Your task to perform on an android device: add a contact in the contacts app Image 0: 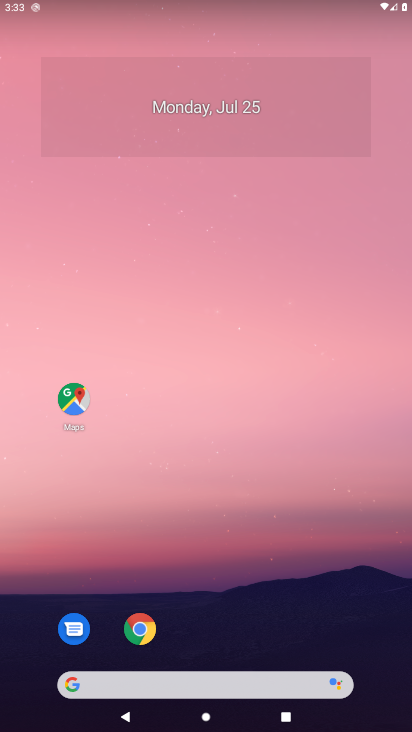
Step 0: drag from (46, 691) to (130, 245)
Your task to perform on an android device: add a contact in the contacts app Image 1: 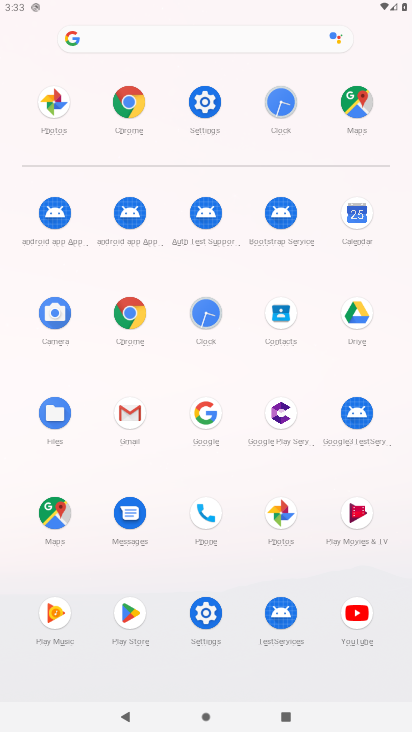
Step 1: click (199, 513)
Your task to perform on an android device: add a contact in the contacts app Image 2: 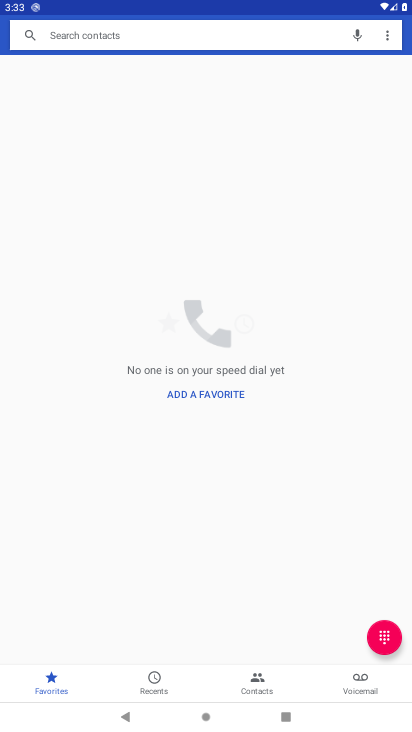
Step 2: click (270, 687)
Your task to perform on an android device: add a contact in the contacts app Image 3: 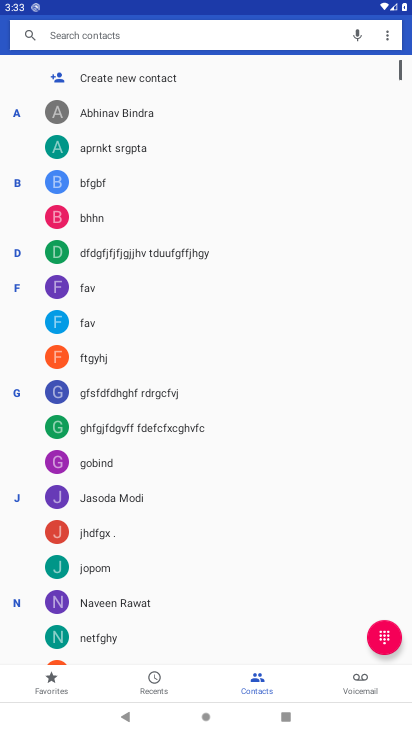
Step 3: click (76, 77)
Your task to perform on an android device: add a contact in the contacts app Image 4: 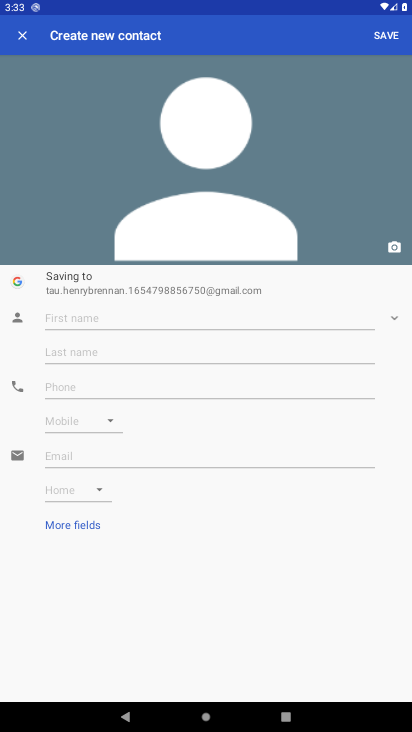
Step 4: click (76, 309)
Your task to perform on an android device: add a contact in the contacts app Image 5: 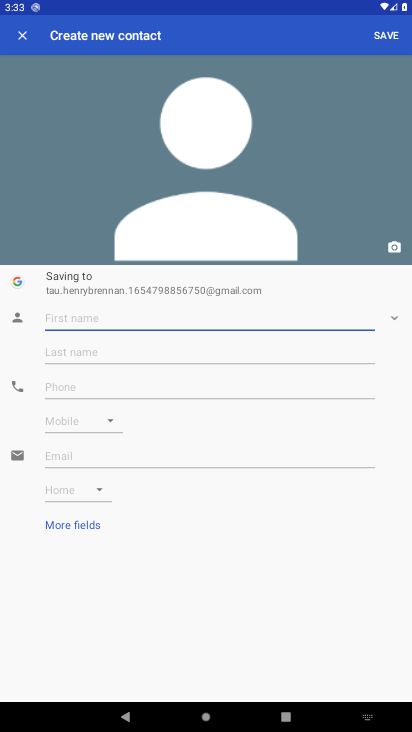
Step 5: type "khgyutuy"
Your task to perform on an android device: add a contact in the contacts app Image 6: 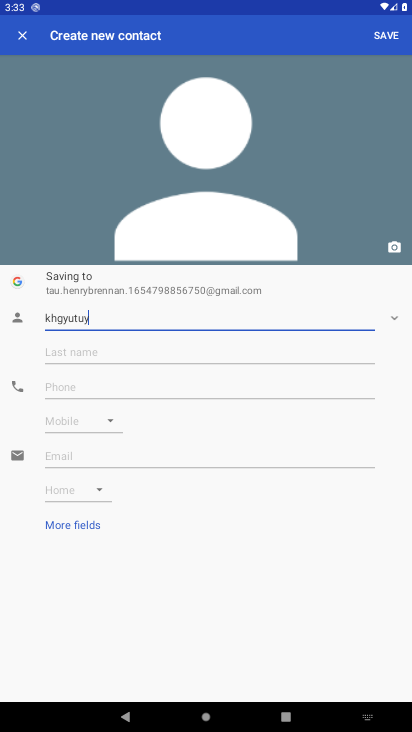
Step 6: type ""
Your task to perform on an android device: add a contact in the contacts app Image 7: 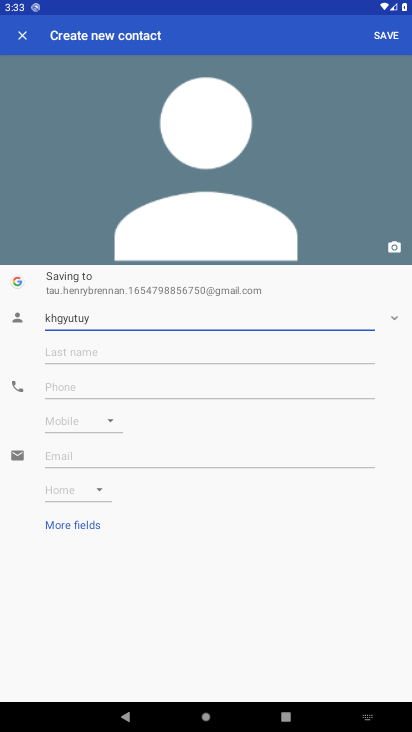
Step 7: click (373, 38)
Your task to perform on an android device: add a contact in the contacts app Image 8: 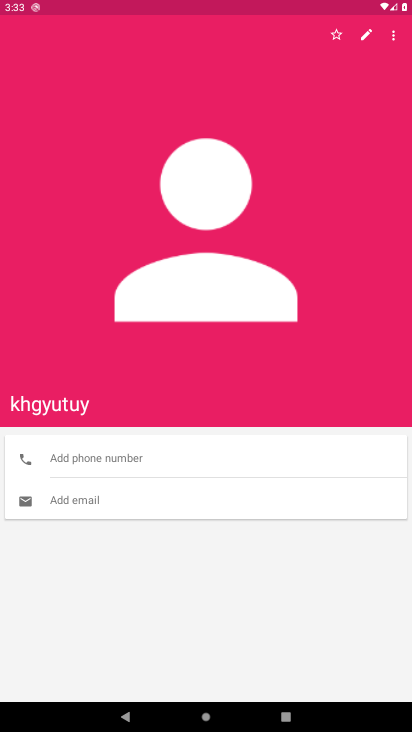
Step 8: task complete